Your task to perform on an android device: See recent photos Image 0: 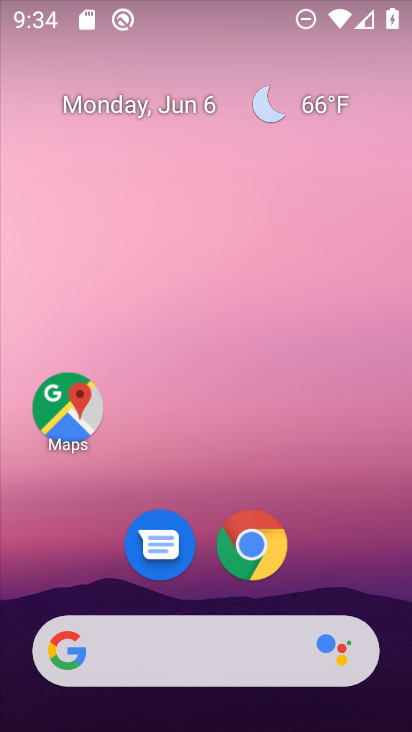
Step 0: drag from (286, 545) to (312, 218)
Your task to perform on an android device: See recent photos Image 1: 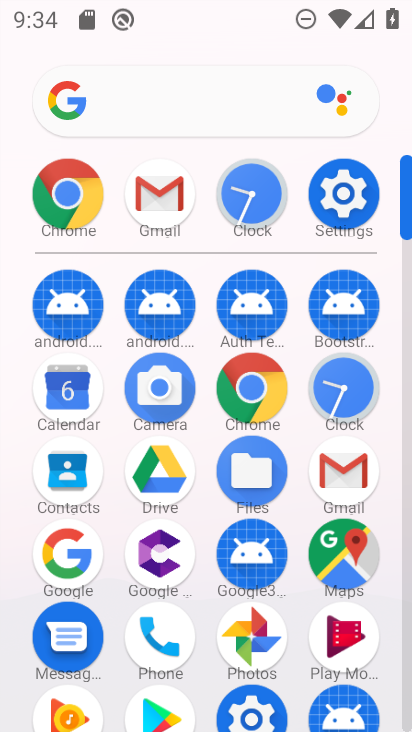
Step 1: drag from (199, 587) to (237, 272)
Your task to perform on an android device: See recent photos Image 2: 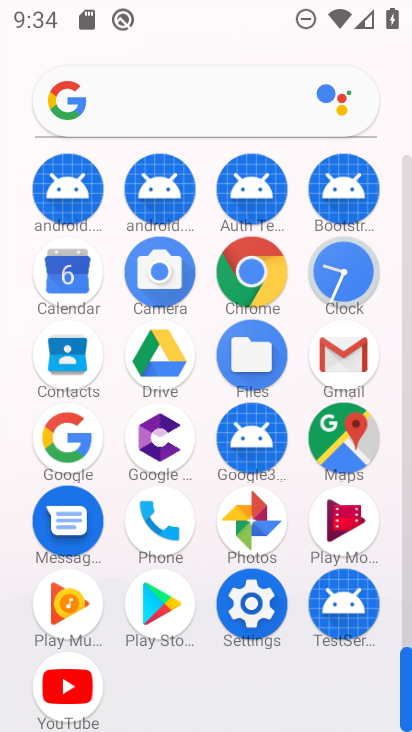
Step 2: click (251, 525)
Your task to perform on an android device: See recent photos Image 3: 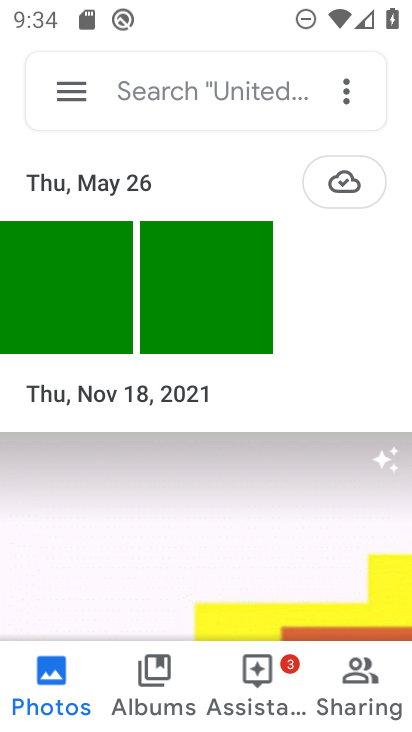
Step 3: task complete